Your task to perform on an android device: open a bookmark in the chrome app Image 0: 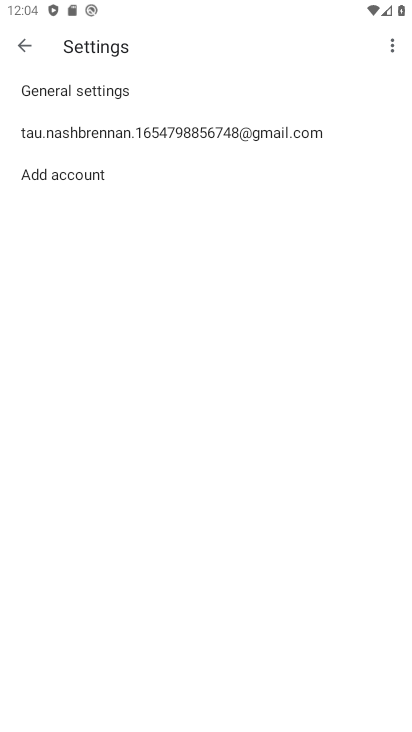
Step 0: press home button
Your task to perform on an android device: open a bookmark in the chrome app Image 1: 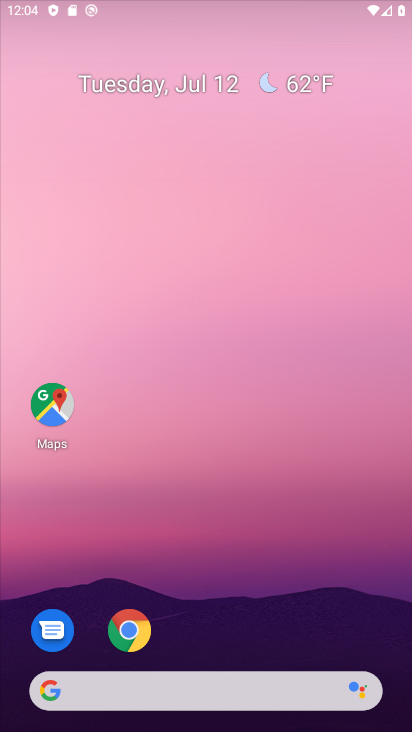
Step 1: click (127, 636)
Your task to perform on an android device: open a bookmark in the chrome app Image 2: 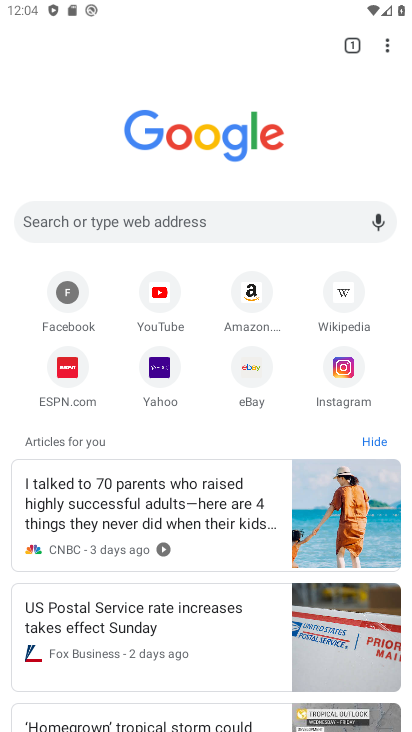
Step 2: click (382, 46)
Your task to perform on an android device: open a bookmark in the chrome app Image 3: 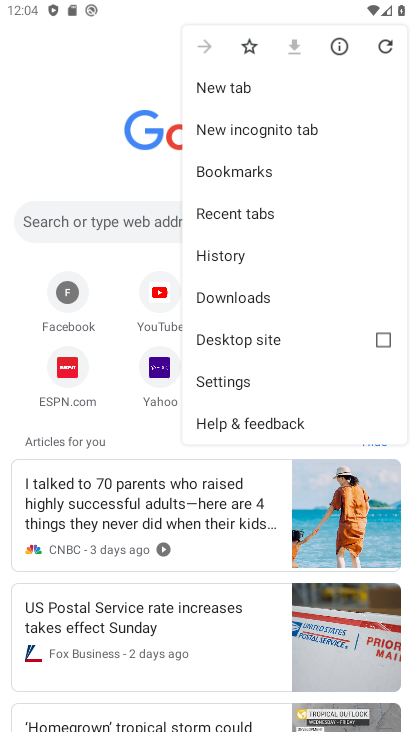
Step 3: click (245, 180)
Your task to perform on an android device: open a bookmark in the chrome app Image 4: 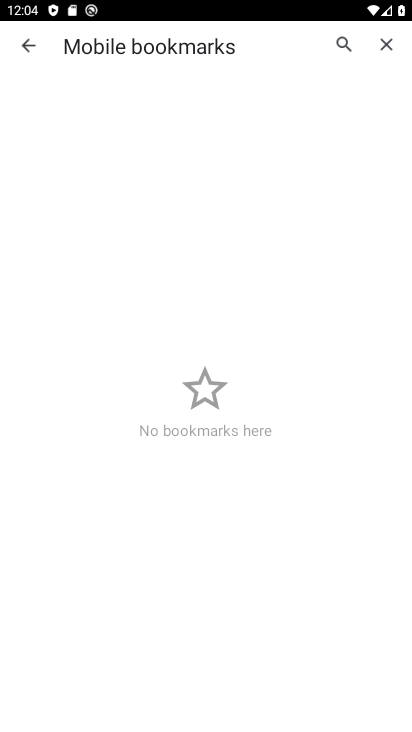
Step 4: task complete